Your task to perform on an android device: Open accessibility settings Image 0: 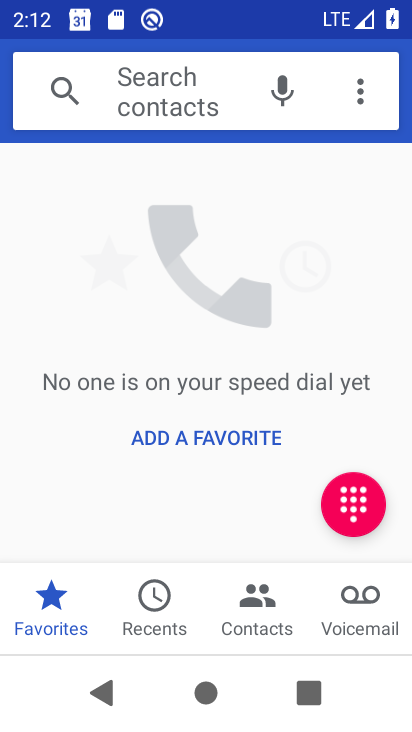
Step 0: press back button
Your task to perform on an android device: Open accessibility settings Image 1: 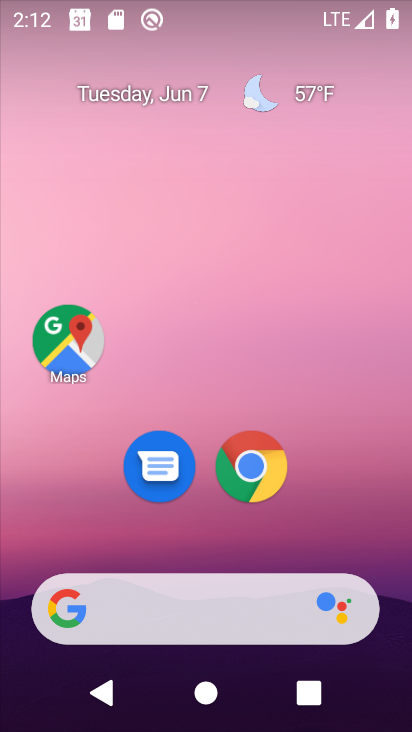
Step 1: drag from (195, 436) to (222, 1)
Your task to perform on an android device: Open accessibility settings Image 2: 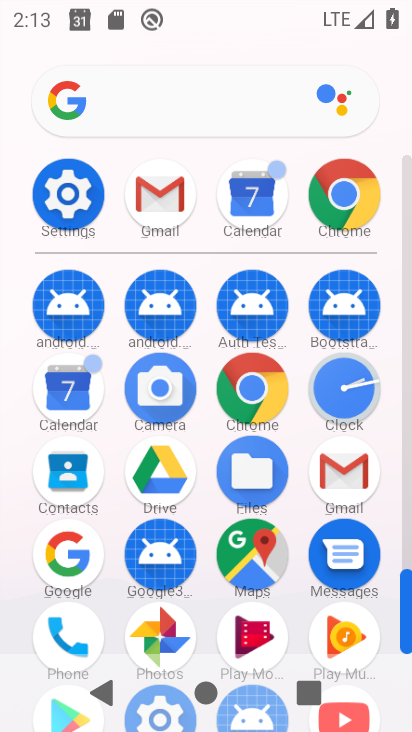
Step 2: click (58, 175)
Your task to perform on an android device: Open accessibility settings Image 3: 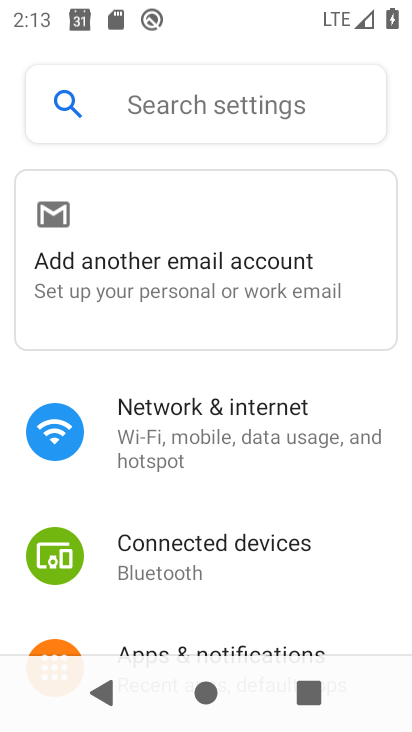
Step 3: drag from (229, 546) to (282, 13)
Your task to perform on an android device: Open accessibility settings Image 4: 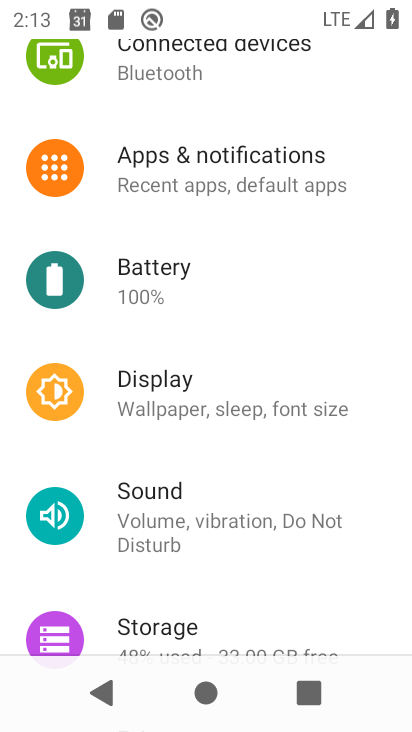
Step 4: drag from (194, 592) to (261, 78)
Your task to perform on an android device: Open accessibility settings Image 5: 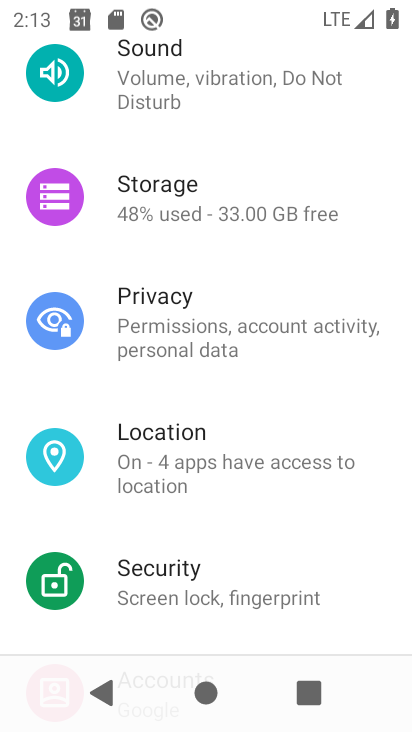
Step 5: drag from (173, 544) to (235, 41)
Your task to perform on an android device: Open accessibility settings Image 6: 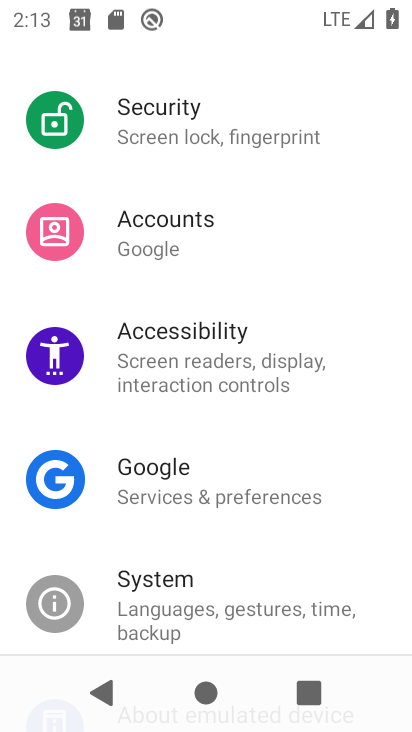
Step 6: click (176, 351)
Your task to perform on an android device: Open accessibility settings Image 7: 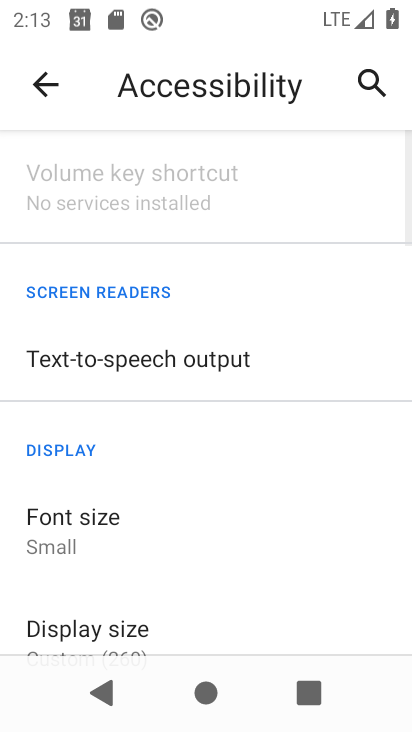
Step 7: task complete